Your task to perform on an android device: What's the weather going to be this weekend? Image 0: 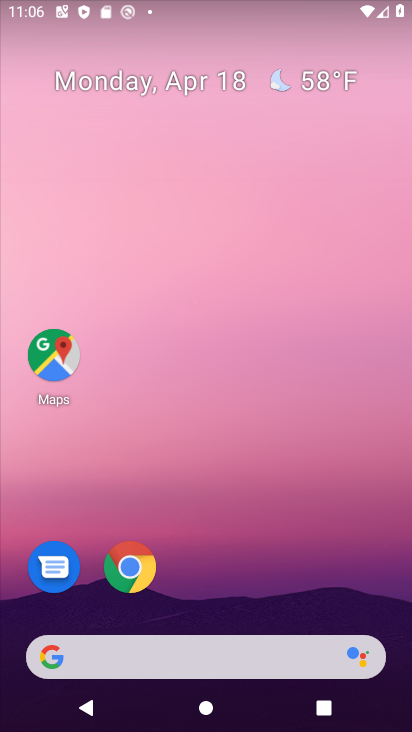
Step 0: click (326, 82)
Your task to perform on an android device: What's the weather going to be this weekend? Image 1: 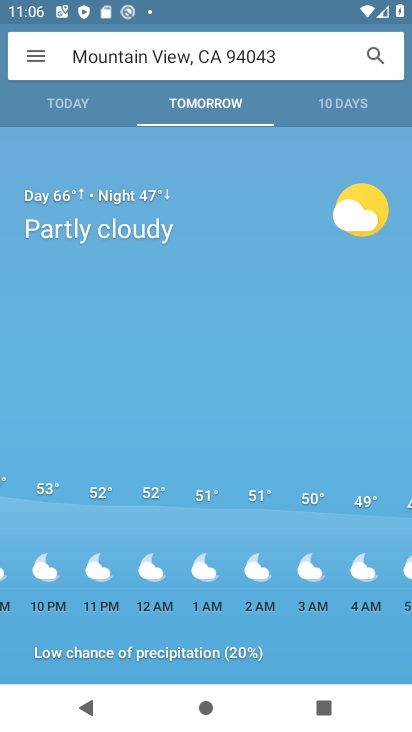
Step 1: click (323, 82)
Your task to perform on an android device: What's the weather going to be this weekend? Image 2: 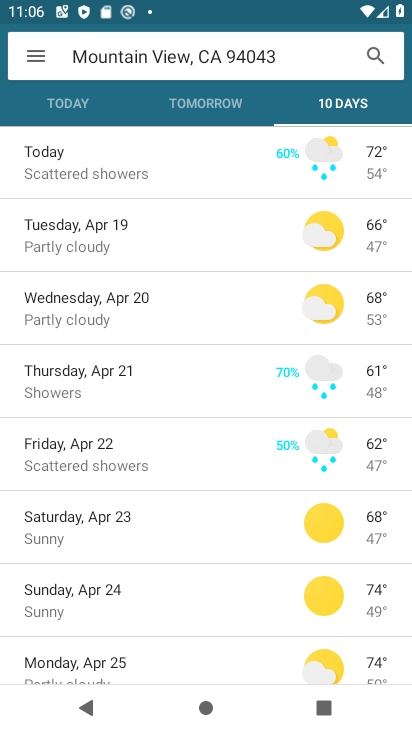
Step 2: task complete